Your task to perform on an android device: Go to Wikipedia Image 0: 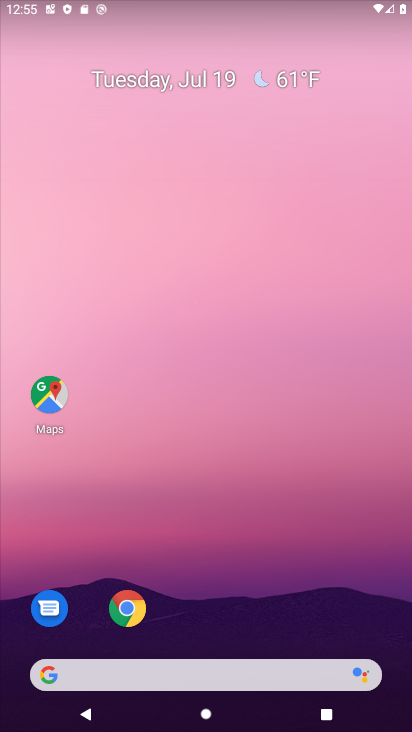
Step 0: drag from (246, 600) to (222, 224)
Your task to perform on an android device: Go to Wikipedia Image 1: 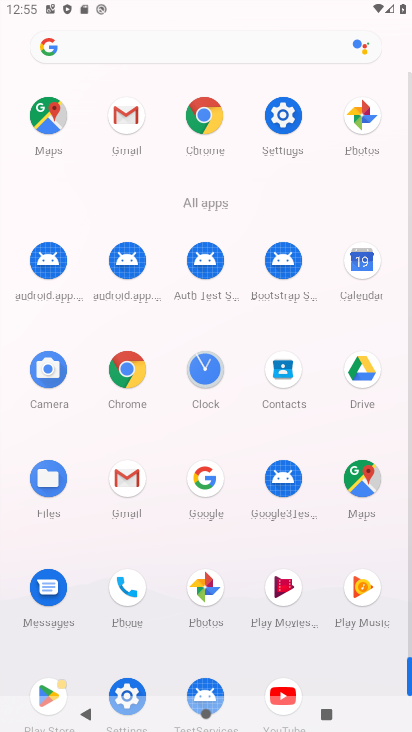
Step 1: click (369, 489)
Your task to perform on an android device: Go to Wikipedia Image 2: 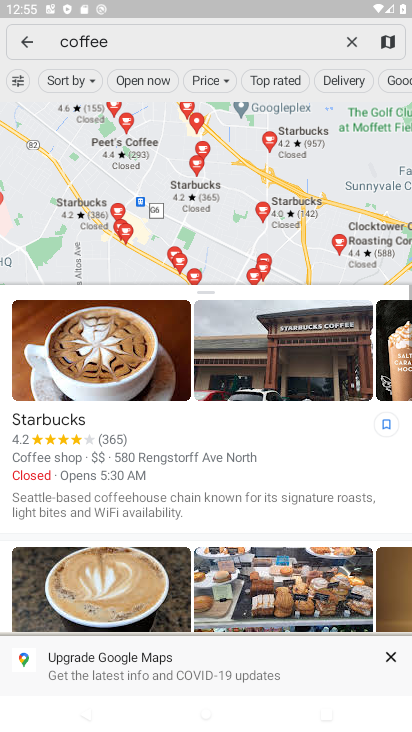
Step 2: click (18, 39)
Your task to perform on an android device: Go to Wikipedia Image 3: 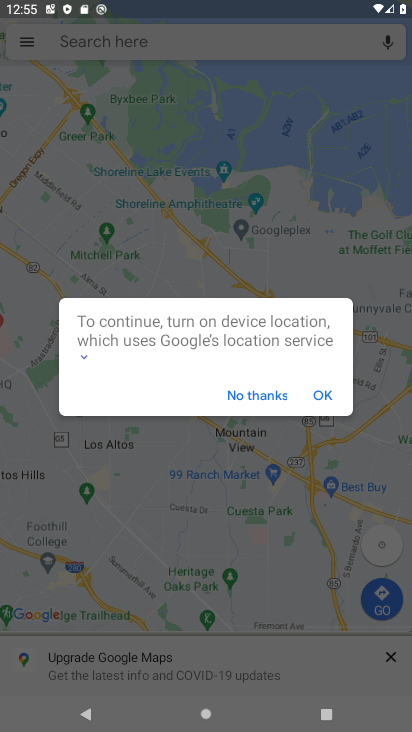
Step 3: click (250, 405)
Your task to perform on an android device: Go to Wikipedia Image 4: 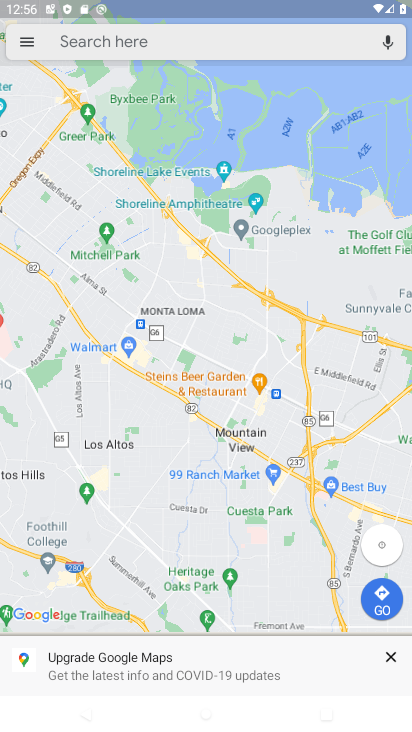
Step 4: press back button
Your task to perform on an android device: Go to Wikipedia Image 5: 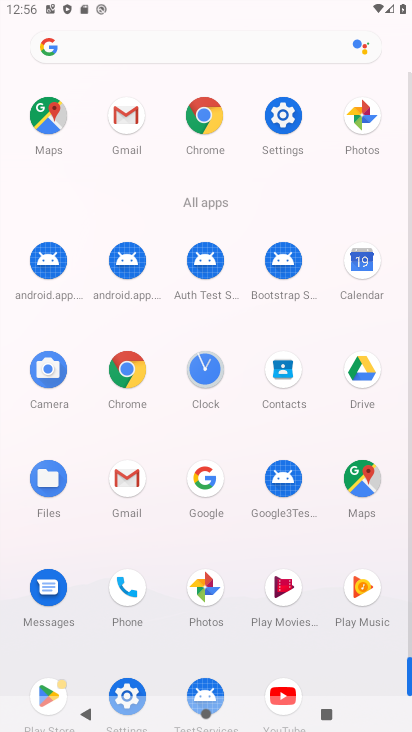
Step 5: click (213, 119)
Your task to perform on an android device: Go to Wikipedia Image 6: 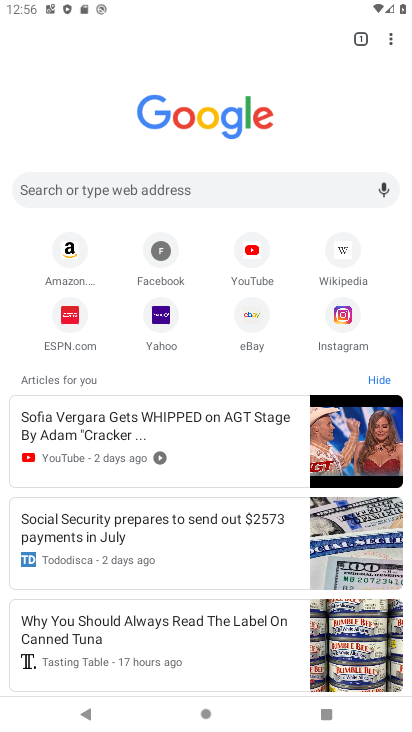
Step 6: click (344, 270)
Your task to perform on an android device: Go to Wikipedia Image 7: 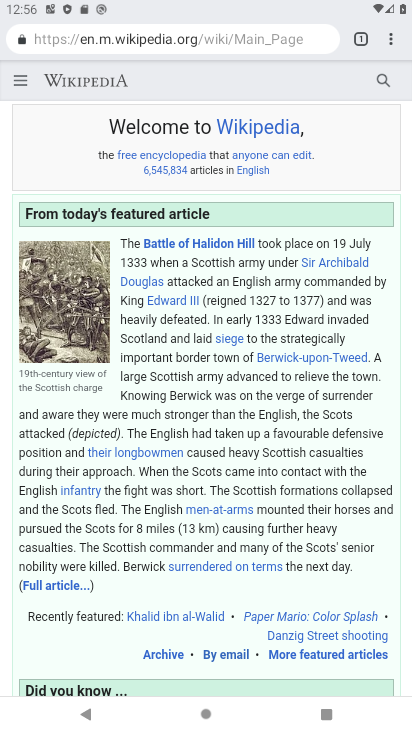
Step 7: task complete